Your task to perform on an android device: turn off location history Image 0: 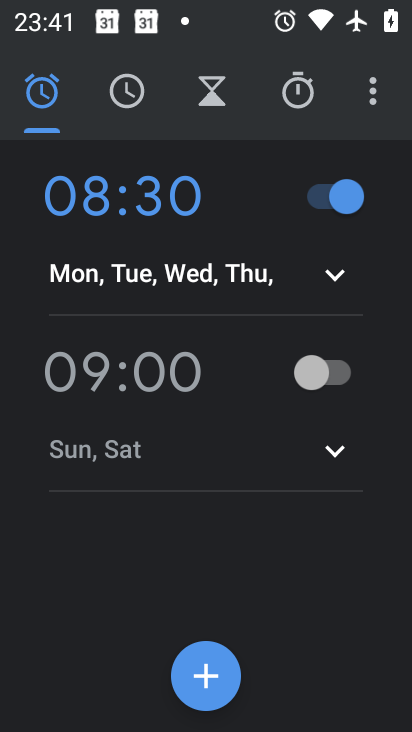
Step 0: press home button
Your task to perform on an android device: turn off location history Image 1: 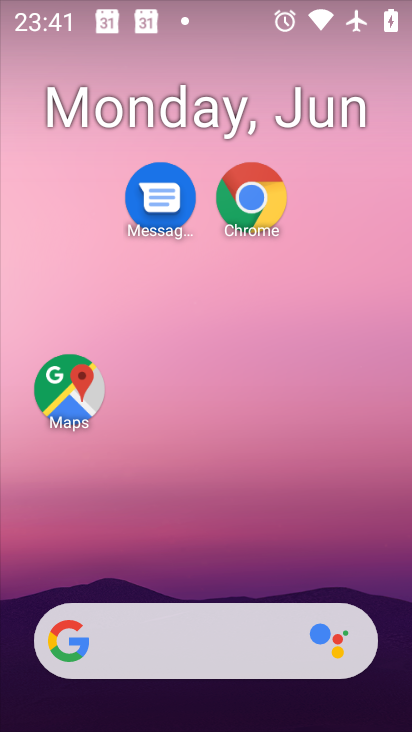
Step 1: drag from (217, 563) to (197, 147)
Your task to perform on an android device: turn off location history Image 2: 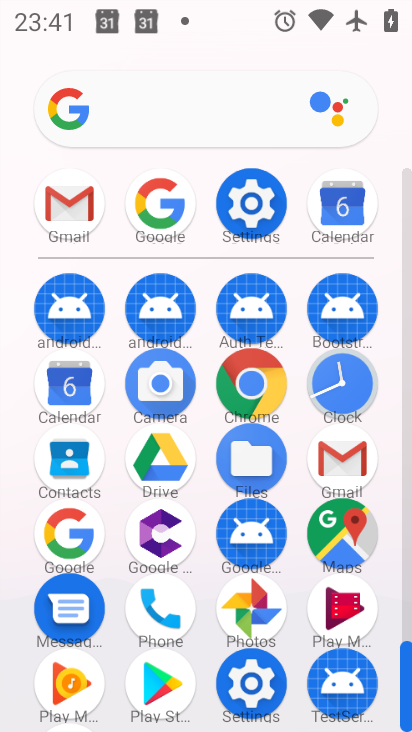
Step 2: click (283, 190)
Your task to perform on an android device: turn off location history Image 3: 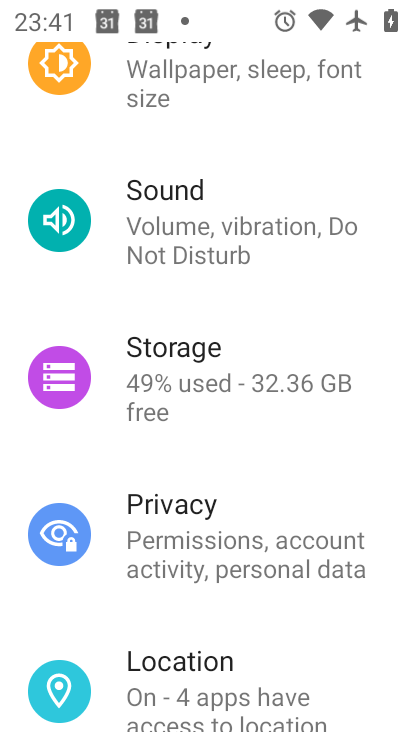
Step 3: click (267, 664)
Your task to perform on an android device: turn off location history Image 4: 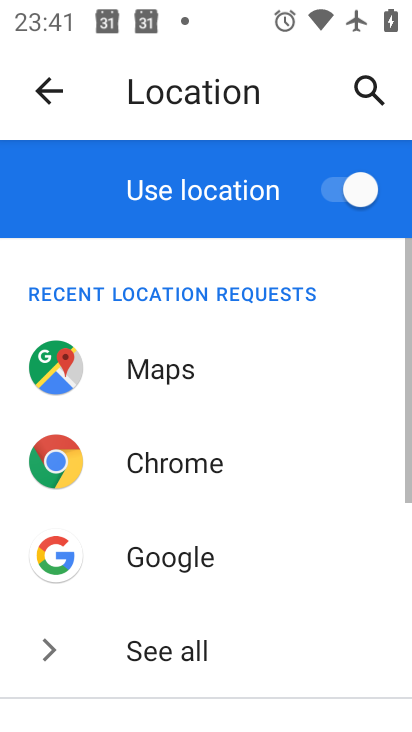
Step 4: drag from (195, 609) to (211, 287)
Your task to perform on an android device: turn off location history Image 5: 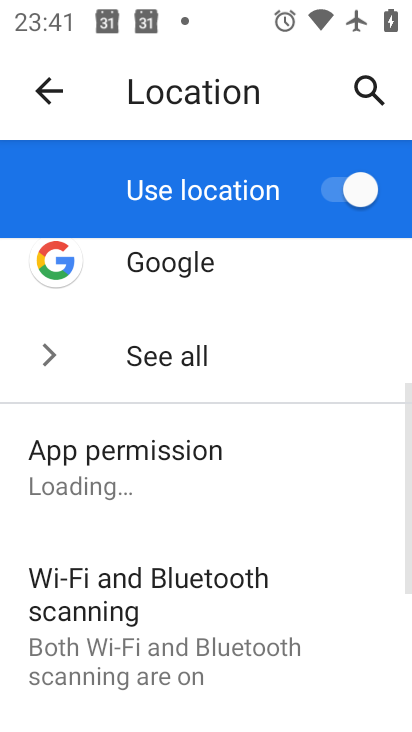
Step 5: drag from (243, 553) to (253, 285)
Your task to perform on an android device: turn off location history Image 6: 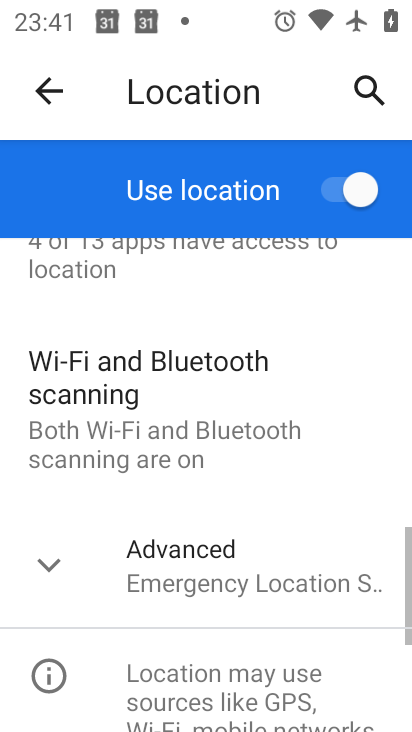
Step 6: drag from (258, 515) to (269, 320)
Your task to perform on an android device: turn off location history Image 7: 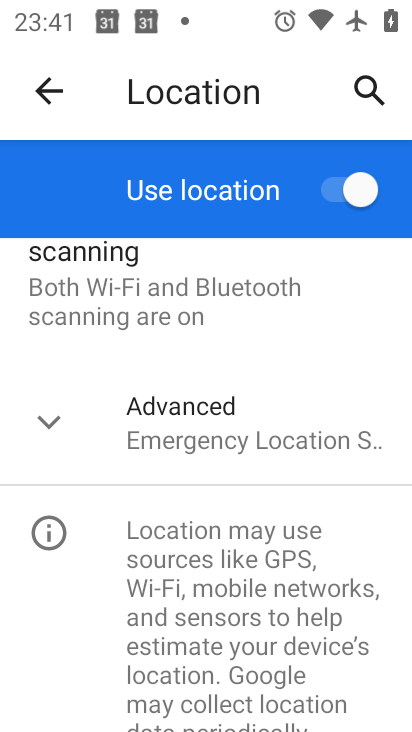
Step 7: drag from (255, 546) to (257, 326)
Your task to perform on an android device: turn off location history Image 8: 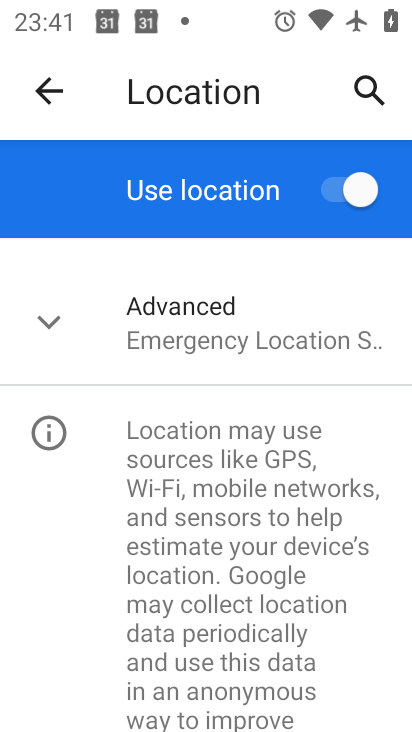
Step 8: click (250, 338)
Your task to perform on an android device: turn off location history Image 9: 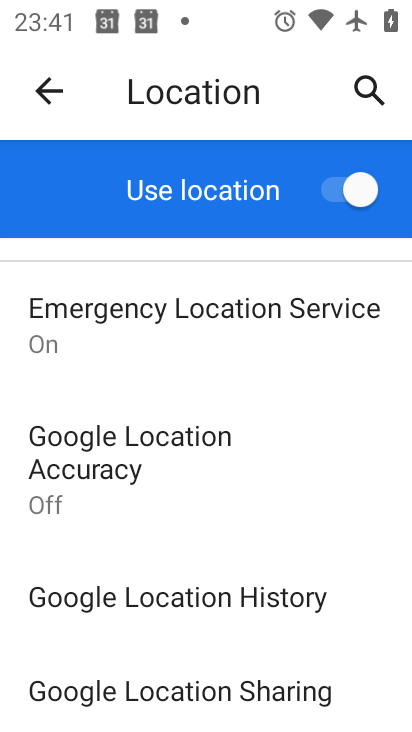
Step 9: click (240, 609)
Your task to perform on an android device: turn off location history Image 10: 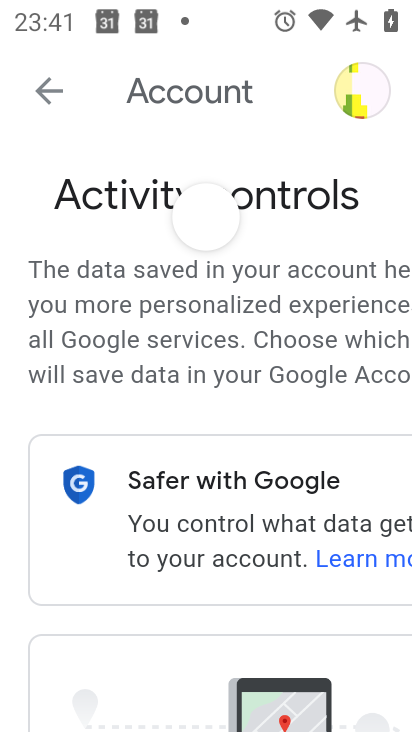
Step 10: drag from (209, 607) to (229, 250)
Your task to perform on an android device: turn off location history Image 11: 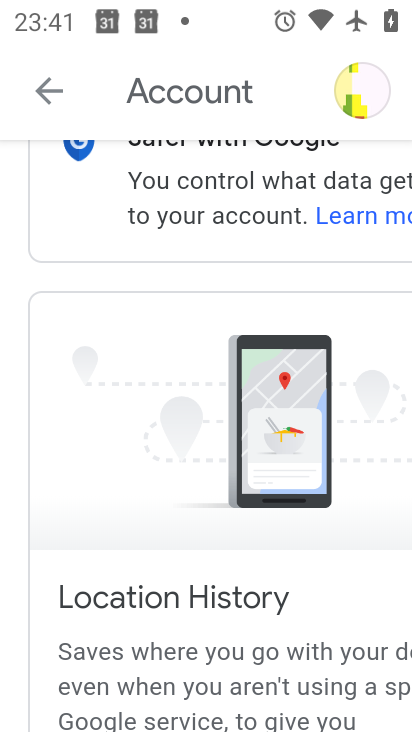
Step 11: drag from (246, 509) to (246, 302)
Your task to perform on an android device: turn off location history Image 12: 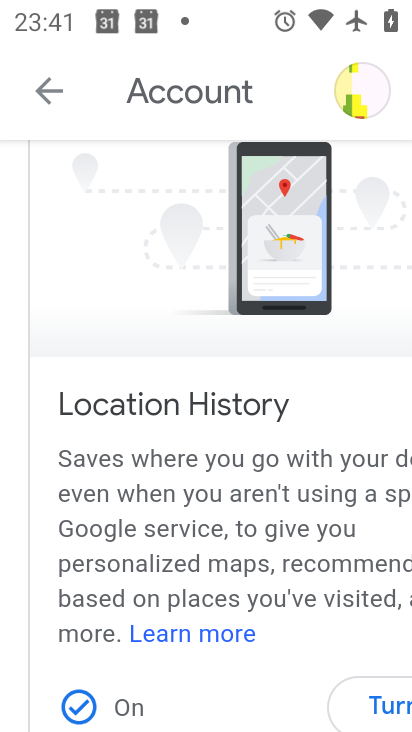
Step 12: drag from (230, 506) to (214, 303)
Your task to perform on an android device: turn off location history Image 13: 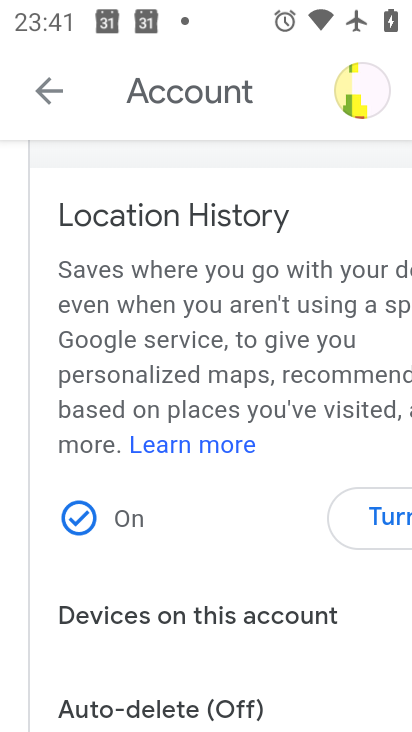
Step 13: click (372, 511)
Your task to perform on an android device: turn off location history Image 14: 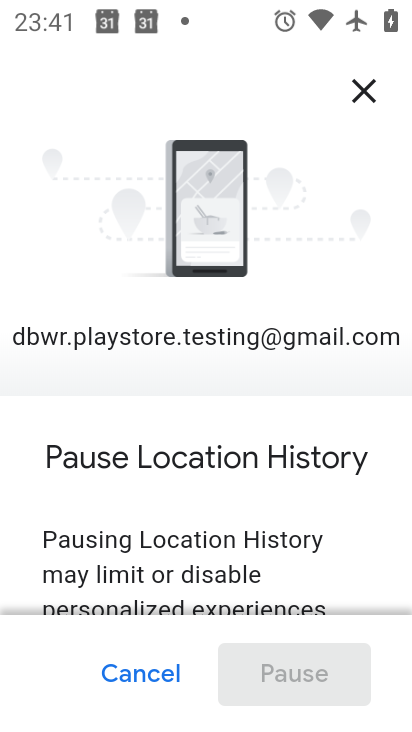
Step 14: drag from (291, 534) to (272, 114)
Your task to perform on an android device: turn off location history Image 15: 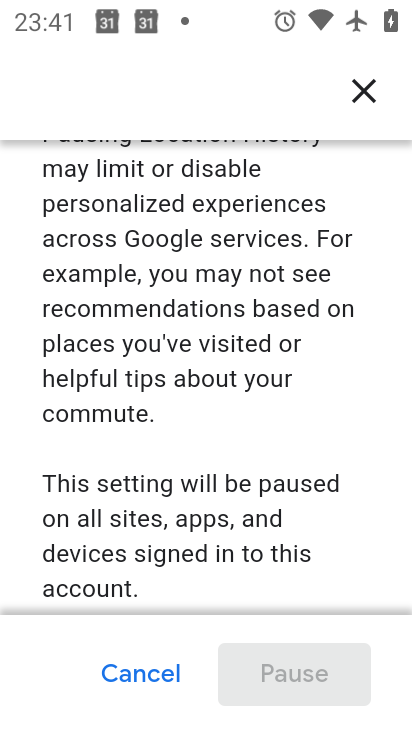
Step 15: drag from (256, 447) to (238, 168)
Your task to perform on an android device: turn off location history Image 16: 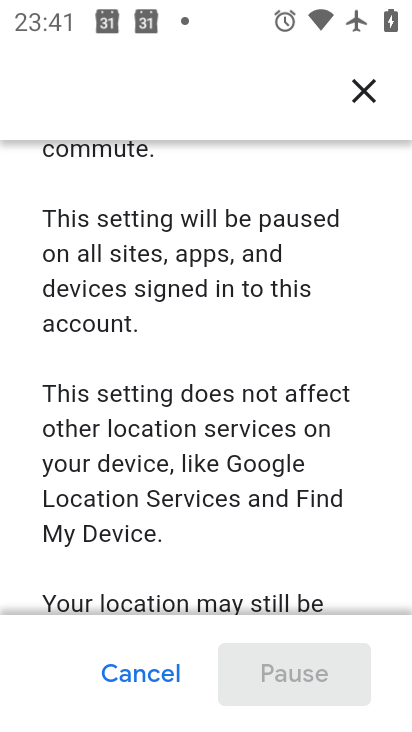
Step 16: drag from (233, 586) to (230, 248)
Your task to perform on an android device: turn off location history Image 17: 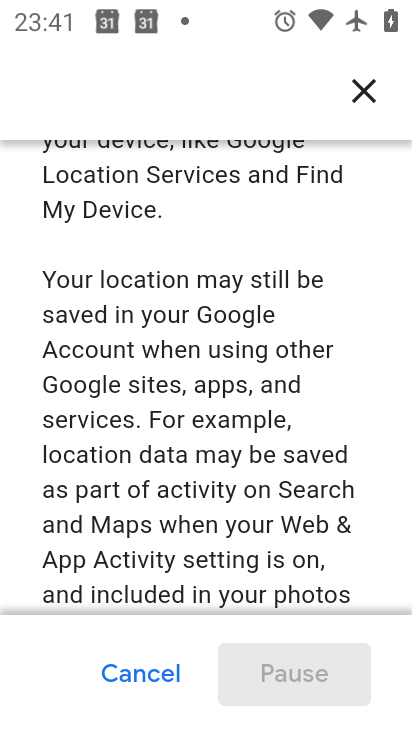
Step 17: drag from (220, 584) to (230, 255)
Your task to perform on an android device: turn off location history Image 18: 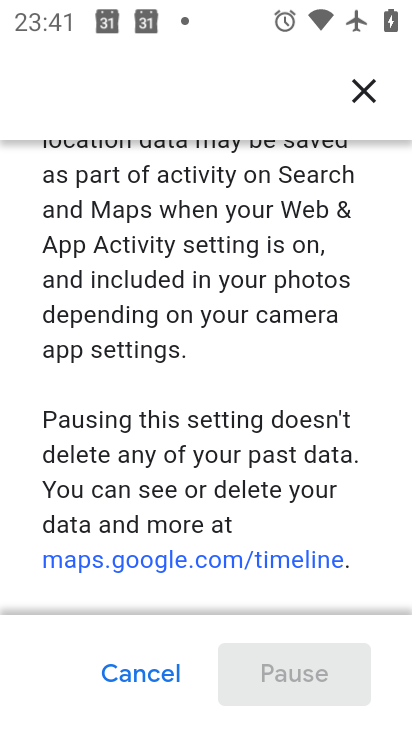
Step 18: drag from (261, 577) to (251, 229)
Your task to perform on an android device: turn off location history Image 19: 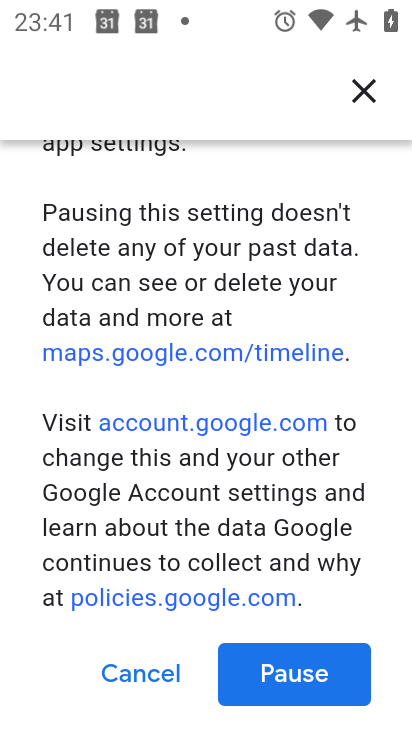
Step 19: click (286, 665)
Your task to perform on an android device: turn off location history Image 20: 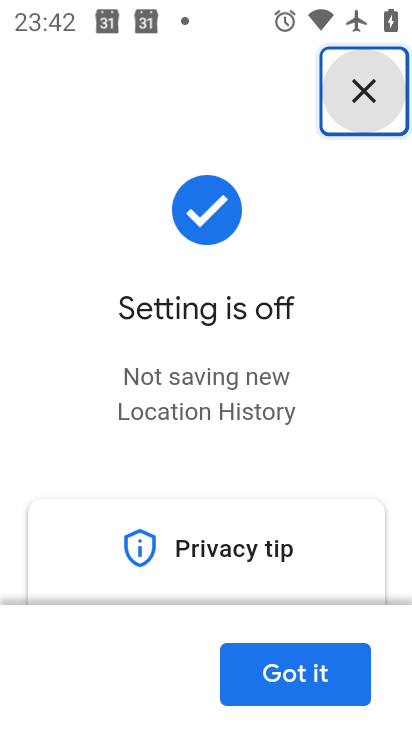
Step 20: task complete